Your task to perform on an android device: uninstall "Google Photos" Image 0: 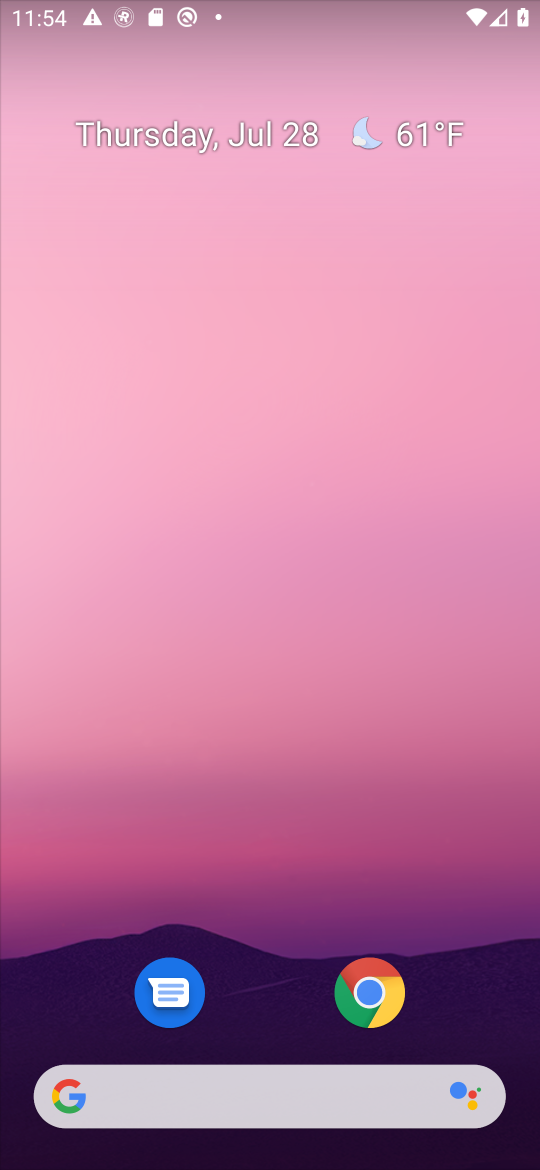
Step 0: drag from (244, 1106) to (278, 71)
Your task to perform on an android device: uninstall "Google Photos" Image 1: 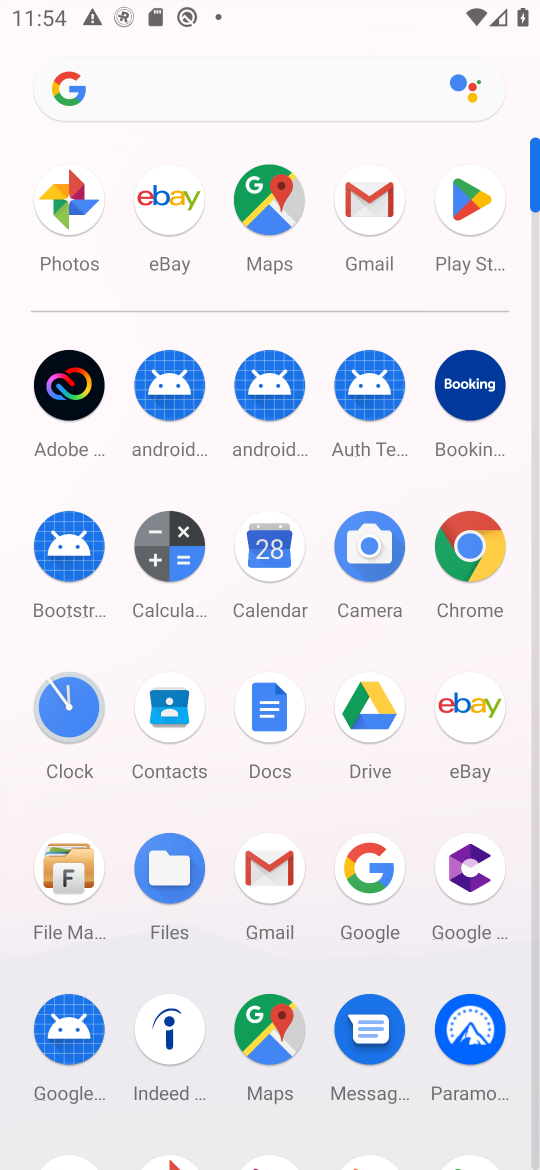
Step 1: click (465, 202)
Your task to perform on an android device: uninstall "Google Photos" Image 2: 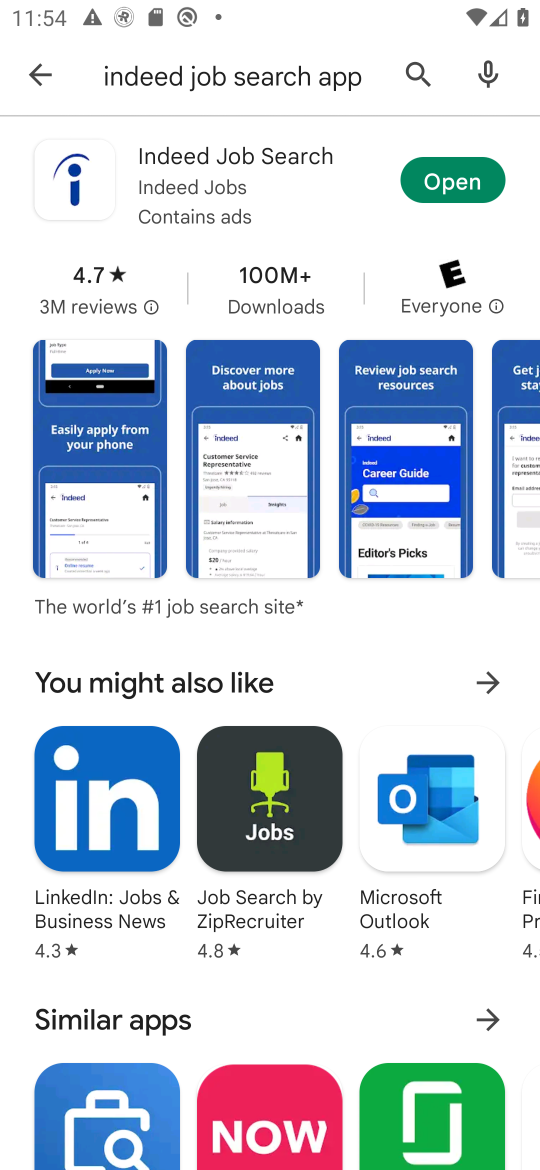
Step 2: click (419, 76)
Your task to perform on an android device: uninstall "Google Photos" Image 3: 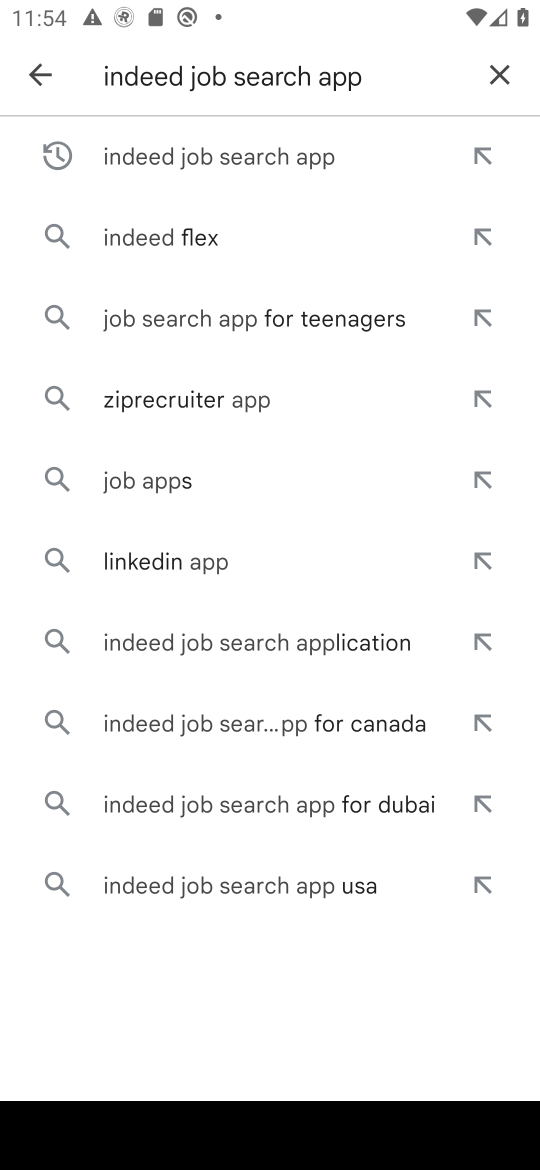
Step 3: click (496, 75)
Your task to perform on an android device: uninstall "Google Photos" Image 4: 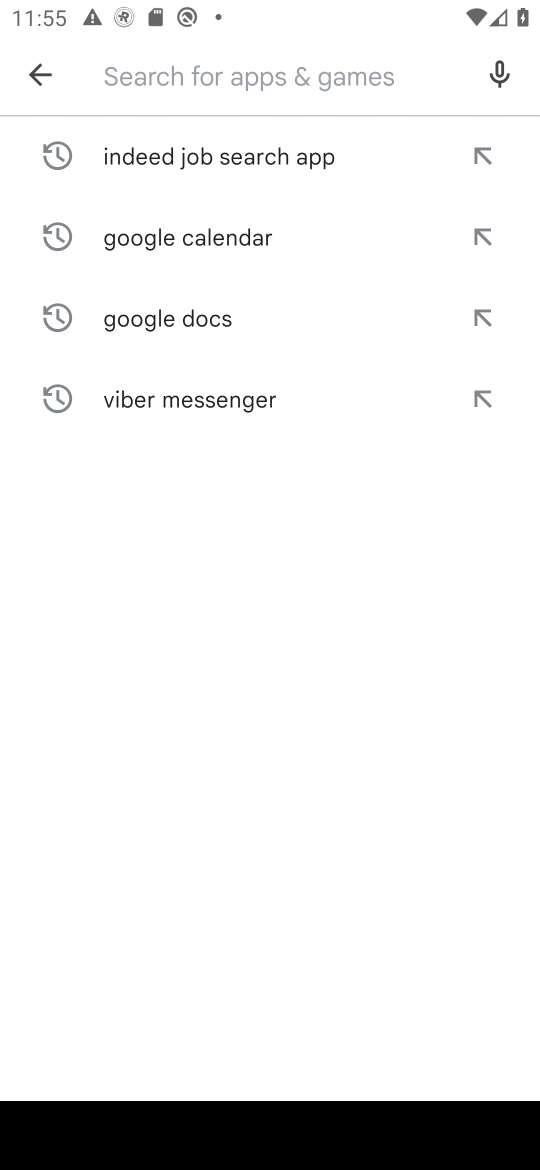
Step 4: type "Google Photo"
Your task to perform on an android device: uninstall "Google Photos" Image 5: 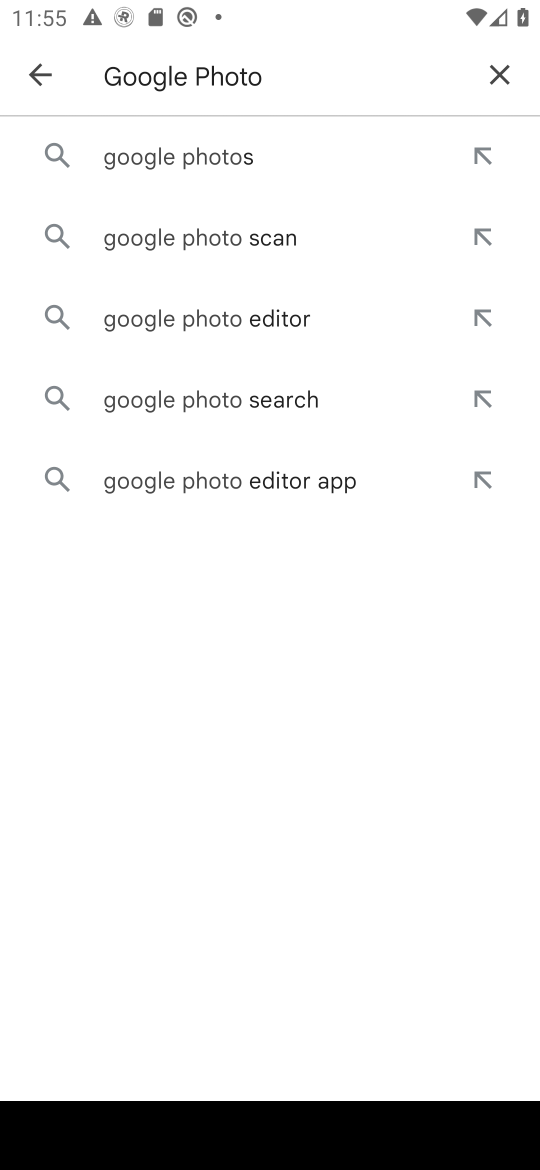
Step 5: click (205, 156)
Your task to perform on an android device: uninstall "Google Photos" Image 6: 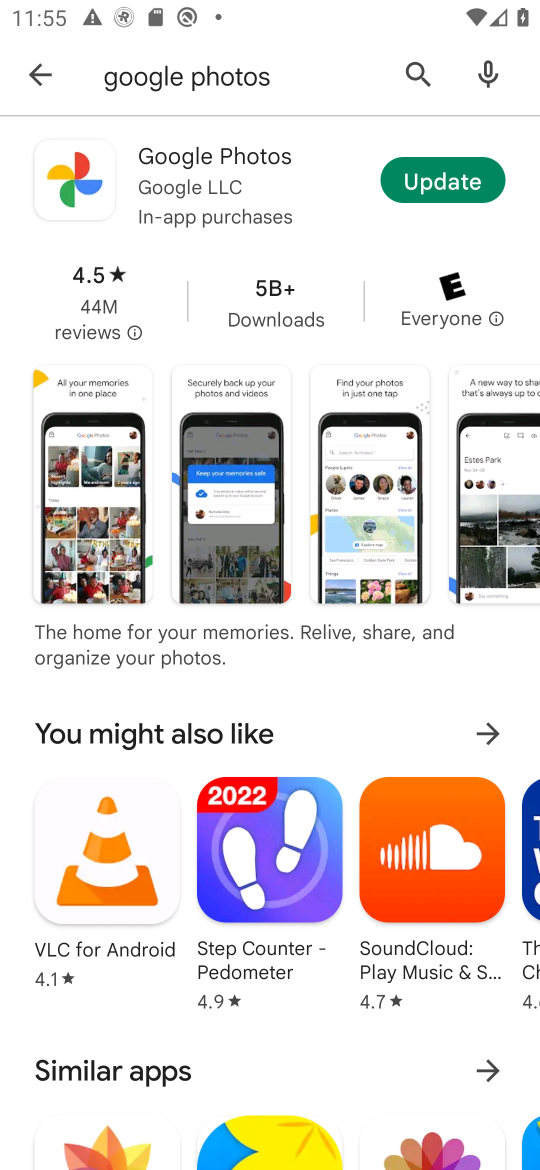
Step 6: click (265, 165)
Your task to perform on an android device: uninstall "Google Photos" Image 7: 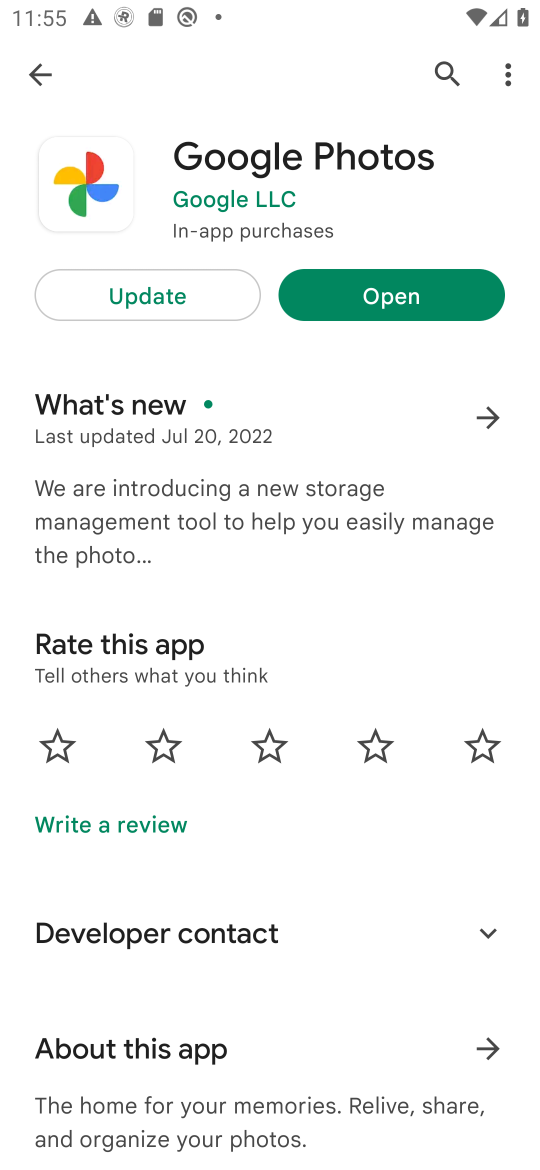
Step 7: click (192, 296)
Your task to perform on an android device: uninstall "Google Photos" Image 8: 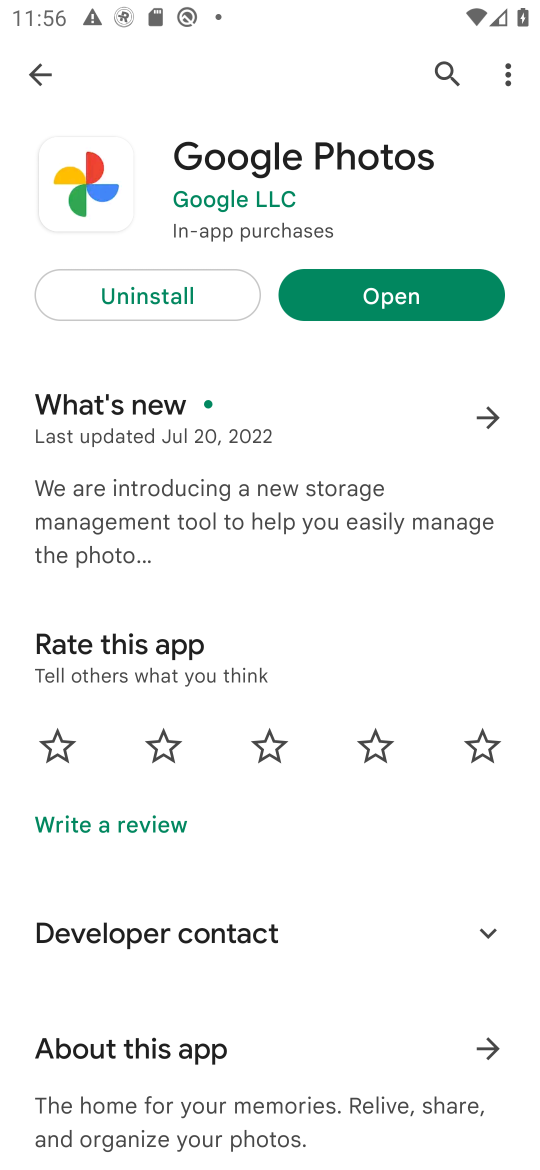
Step 8: click (164, 295)
Your task to perform on an android device: uninstall "Google Photos" Image 9: 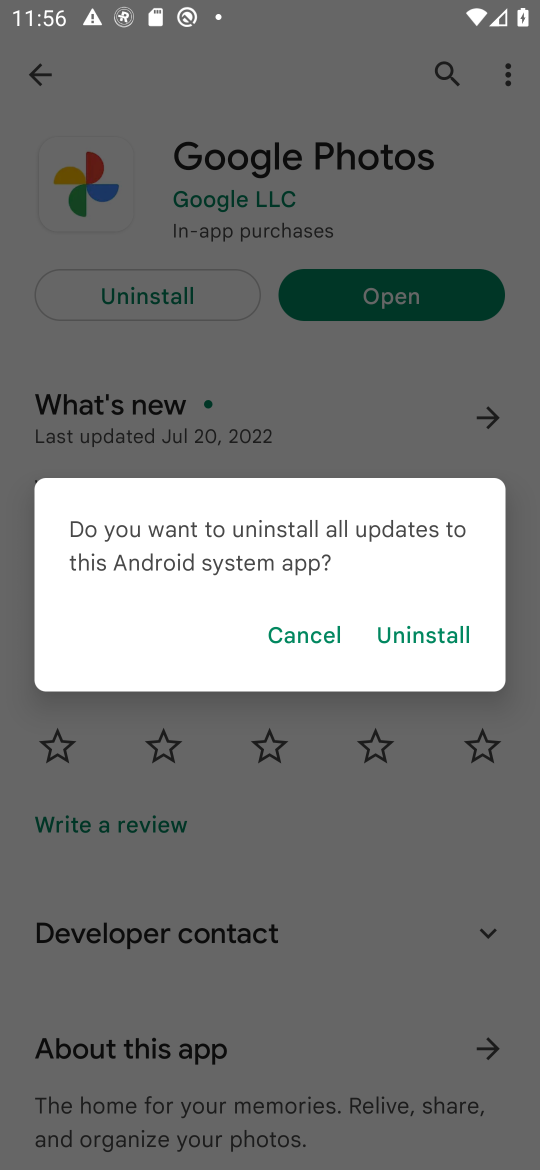
Step 9: click (445, 626)
Your task to perform on an android device: uninstall "Google Photos" Image 10: 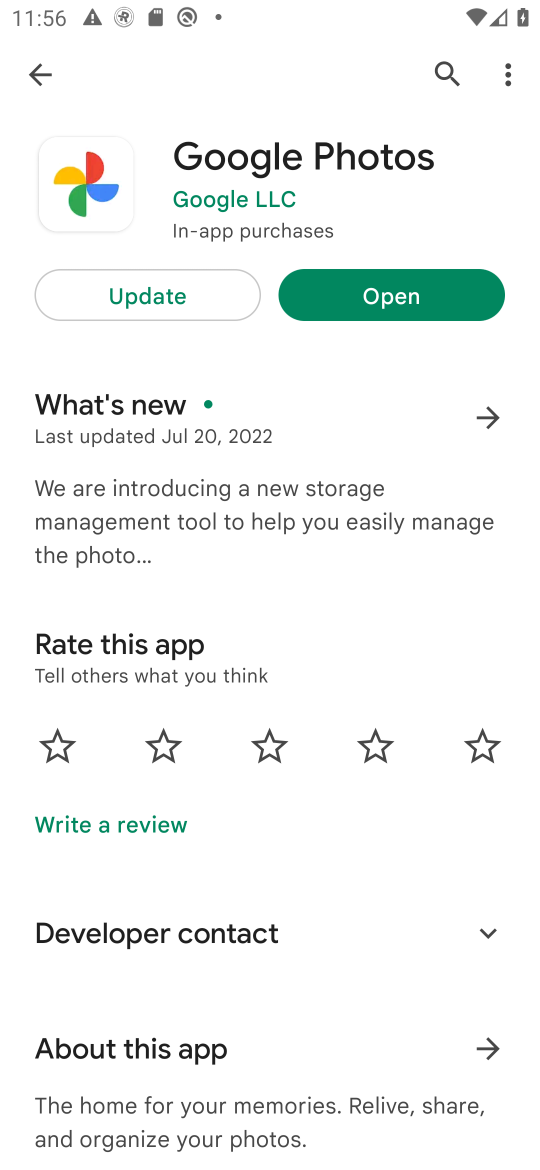
Step 10: task complete